Your task to perform on an android device: toggle wifi Image 0: 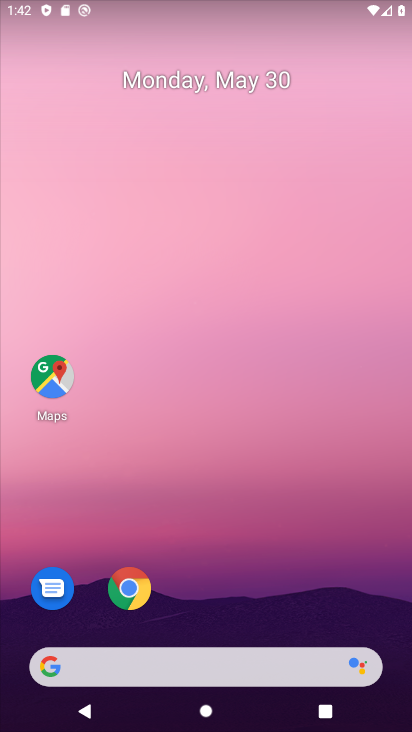
Step 0: drag from (295, 515) to (159, 35)
Your task to perform on an android device: toggle wifi Image 1: 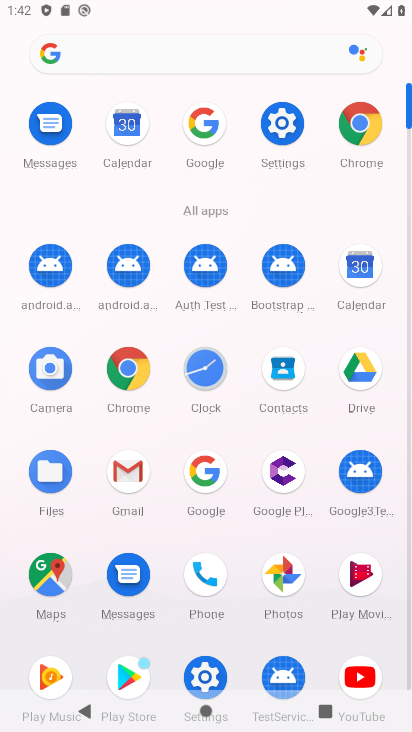
Step 1: click (282, 141)
Your task to perform on an android device: toggle wifi Image 2: 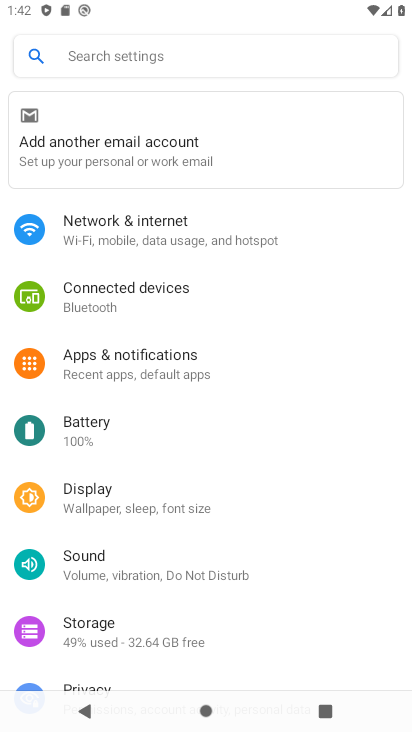
Step 2: click (219, 242)
Your task to perform on an android device: toggle wifi Image 3: 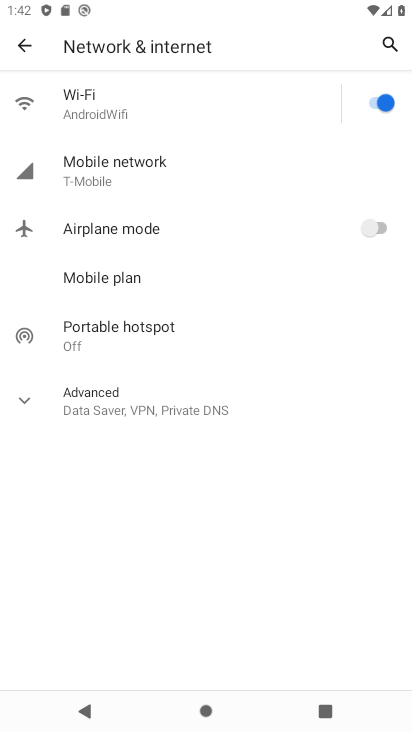
Step 3: click (243, 110)
Your task to perform on an android device: toggle wifi Image 4: 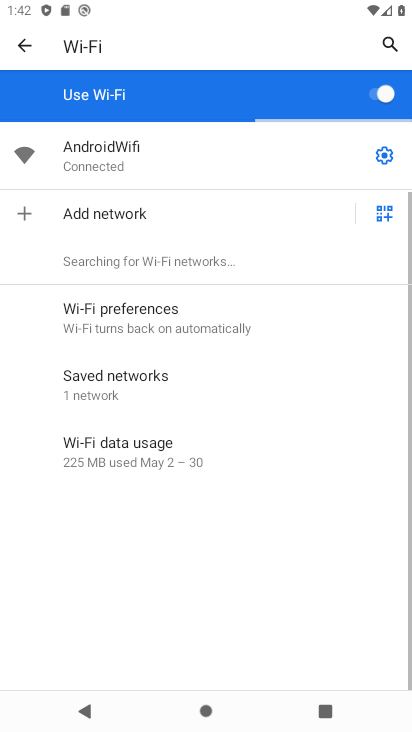
Step 4: click (368, 98)
Your task to perform on an android device: toggle wifi Image 5: 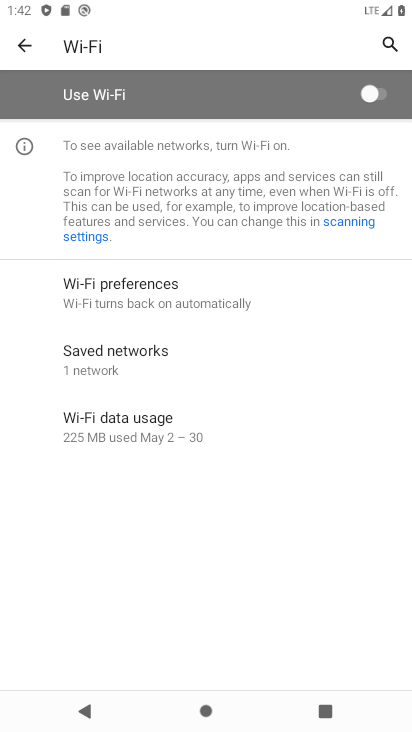
Step 5: task complete